Your task to perform on an android device: What's the weather today? Image 0: 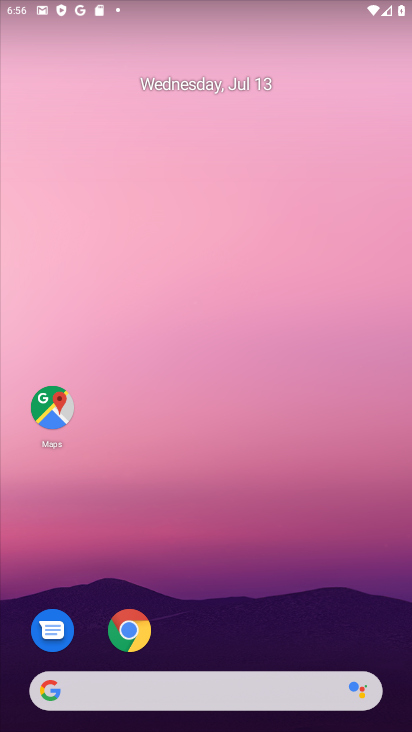
Step 0: drag from (343, 660) to (62, 79)
Your task to perform on an android device: What's the weather today? Image 1: 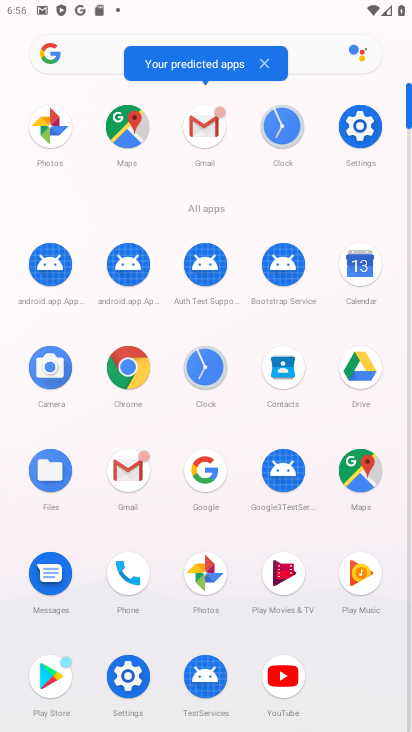
Step 1: click (194, 461)
Your task to perform on an android device: What's the weather today? Image 2: 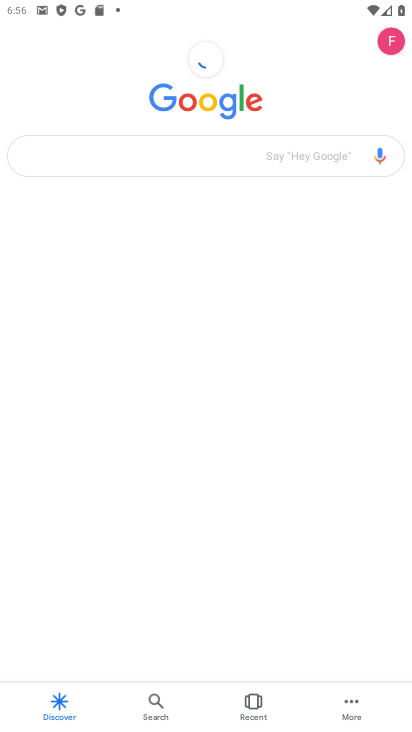
Step 2: click (187, 152)
Your task to perform on an android device: What's the weather today? Image 3: 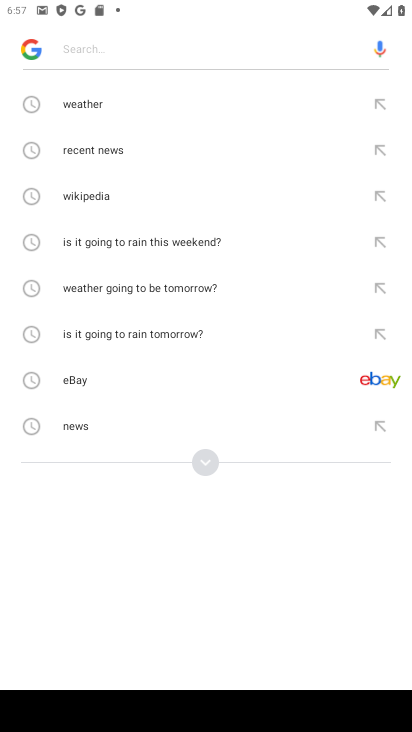
Step 3: type "What's the weather today?"
Your task to perform on an android device: What's the weather today? Image 4: 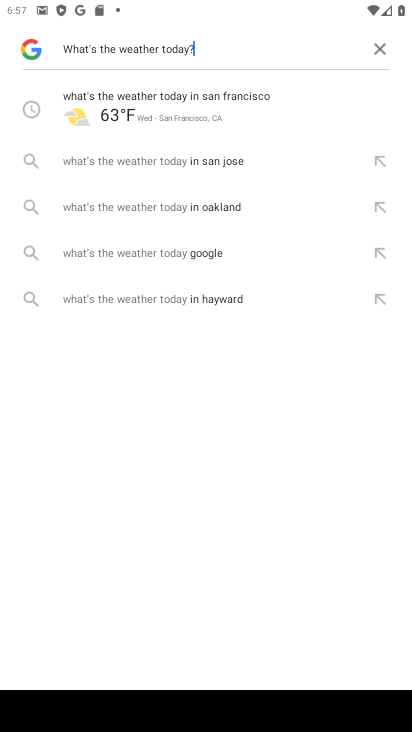
Step 4: click (108, 266)
Your task to perform on an android device: What's the weather today? Image 5: 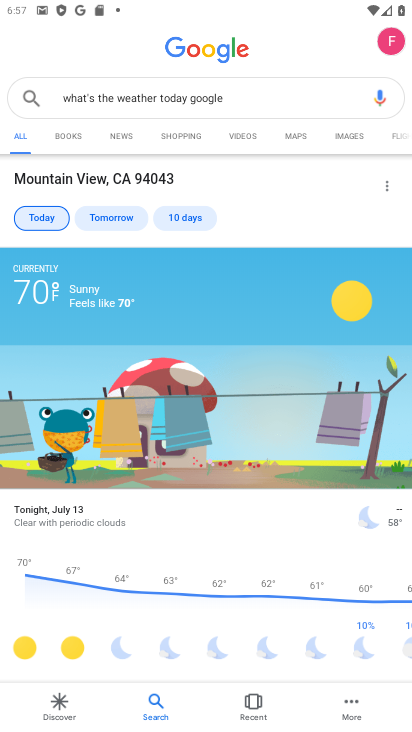
Step 5: task complete